Your task to perform on an android device: Open Google Maps and go to "Timeline" Image 0: 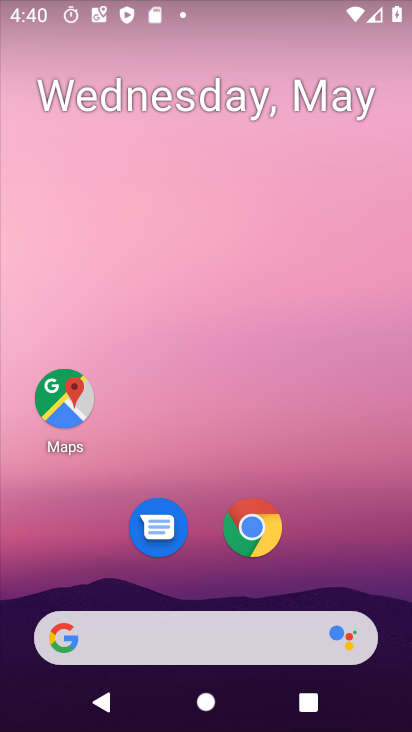
Step 0: click (62, 411)
Your task to perform on an android device: Open Google Maps and go to "Timeline" Image 1: 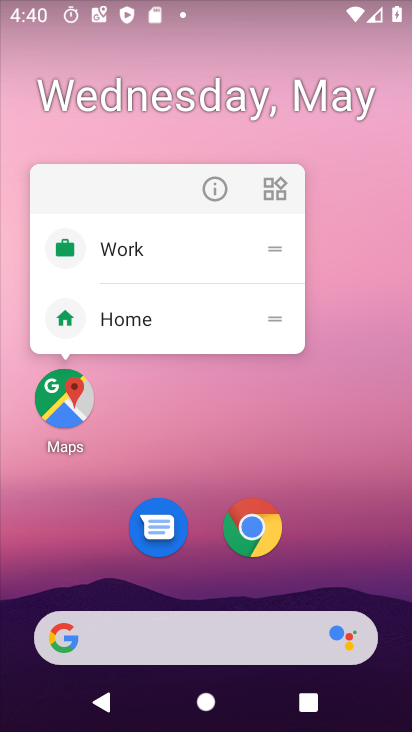
Step 1: click (59, 424)
Your task to perform on an android device: Open Google Maps and go to "Timeline" Image 2: 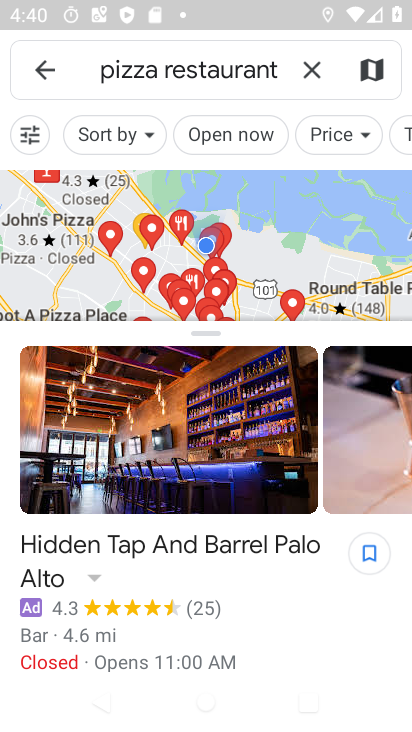
Step 2: click (44, 68)
Your task to perform on an android device: Open Google Maps and go to "Timeline" Image 3: 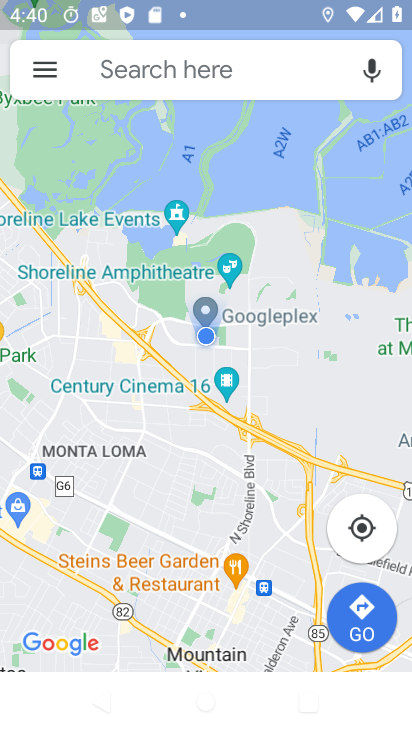
Step 3: click (48, 74)
Your task to perform on an android device: Open Google Maps and go to "Timeline" Image 4: 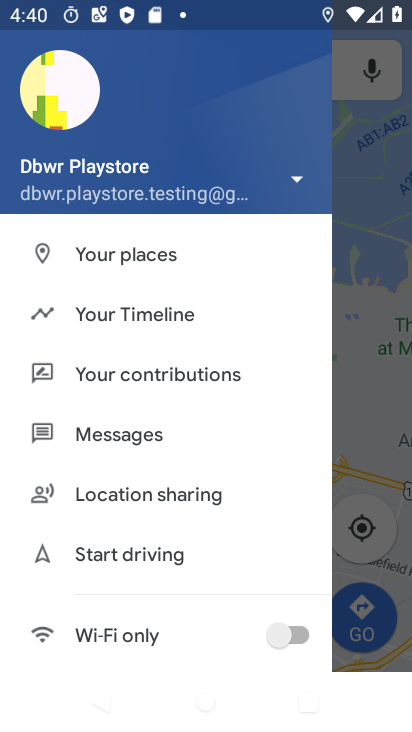
Step 4: click (153, 314)
Your task to perform on an android device: Open Google Maps and go to "Timeline" Image 5: 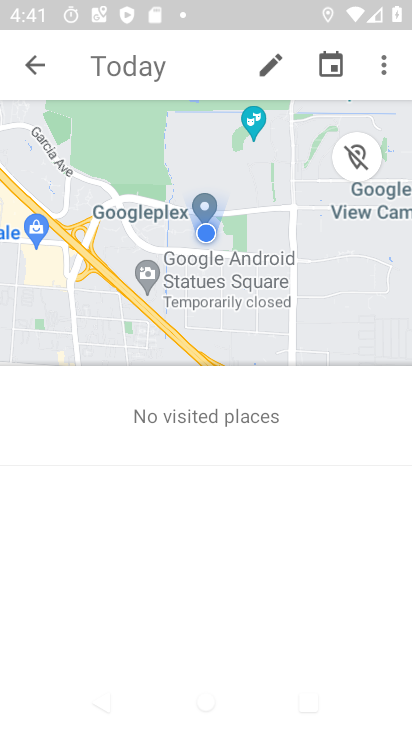
Step 5: task complete